Your task to perform on an android device: turn on the 12-hour format for clock Image 0: 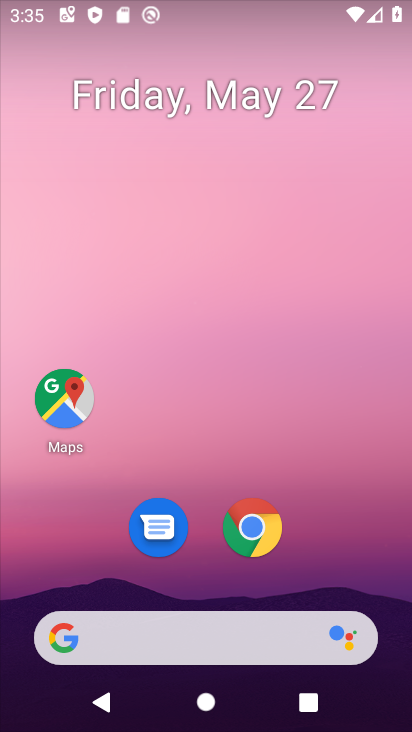
Step 0: drag from (378, 720) to (336, 200)
Your task to perform on an android device: turn on the 12-hour format for clock Image 1: 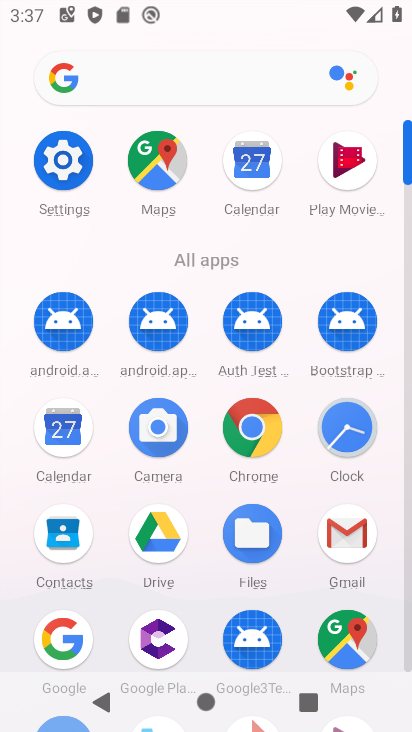
Step 1: click (370, 448)
Your task to perform on an android device: turn on the 12-hour format for clock Image 2: 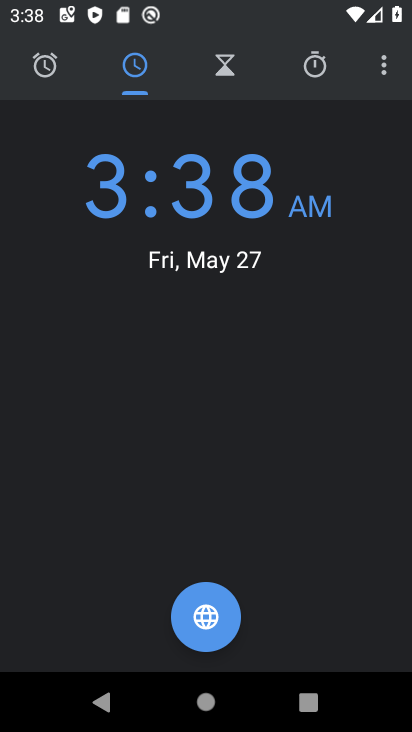
Step 2: click (382, 69)
Your task to perform on an android device: turn on the 12-hour format for clock Image 3: 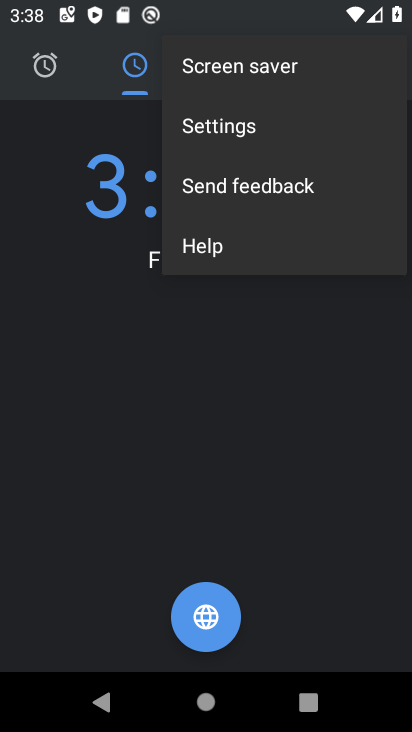
Step 3: click (214, 120)
Your task to perform on an android device: turn on the 12-hour format for clock Image 4: 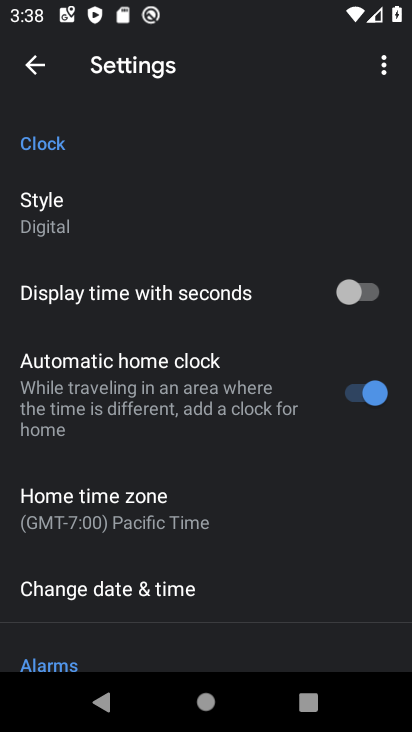
Step 4: click (145, 595)
Your task to perform on an android device: turn on the 12-hour format for clock Image 5: 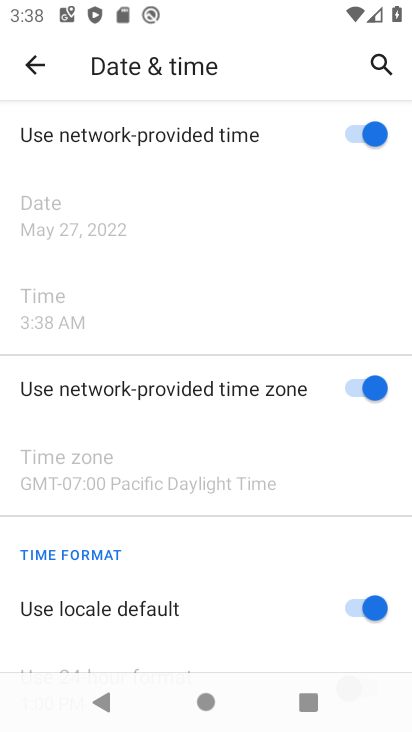
Step 5: drag from (272, 537) to (306, 182)
Your task to perform on an android device: turn on the 12-hour format for clock Image 6: 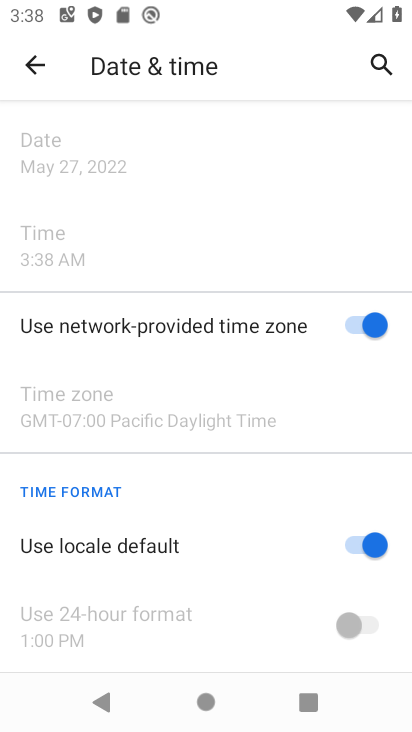
Step 6: click (279, 546)
Your task to perform on an android device: turn on the 12-hour format for clock Image 7: 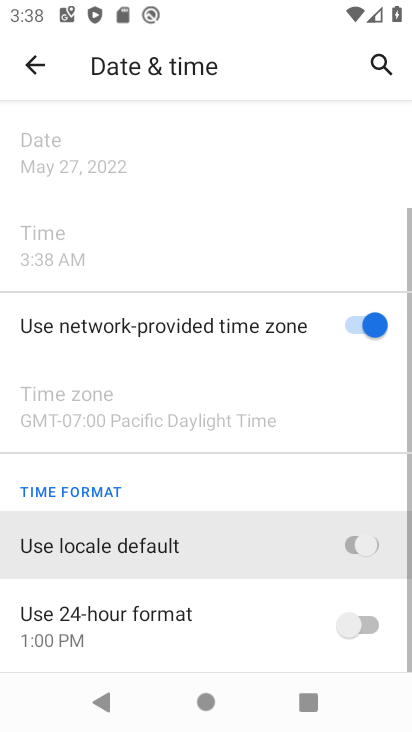
Step 7: click (259, 658)
Your task to perform on an android device: turn on the 12-hour format for clock Image 8: 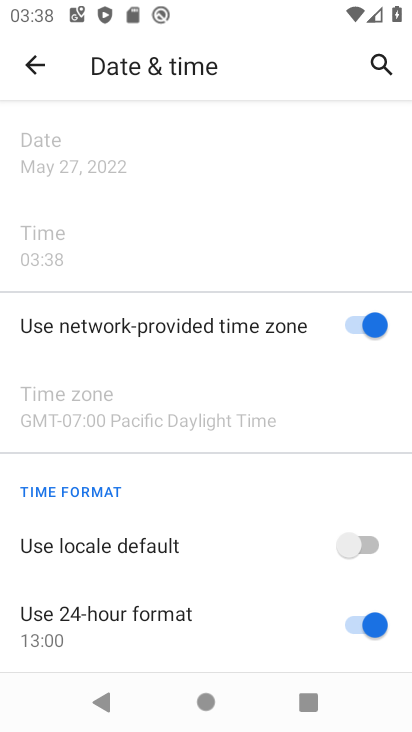
Step 8: task complete